Your task to perform on an android device: check storage Image 0: 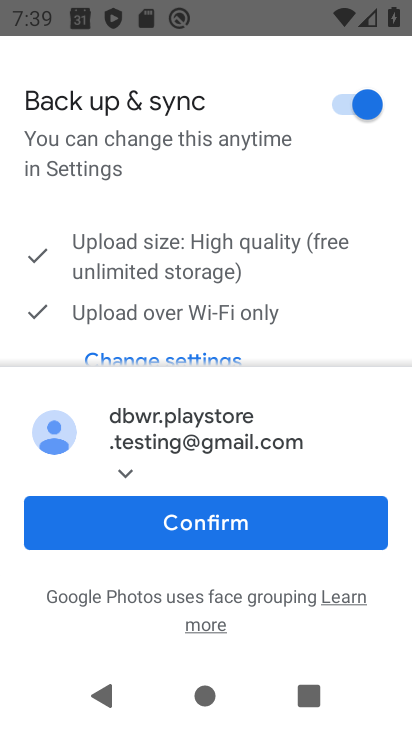
Step 0: press home button
Your task to perform on an android device: check storage Image 1: 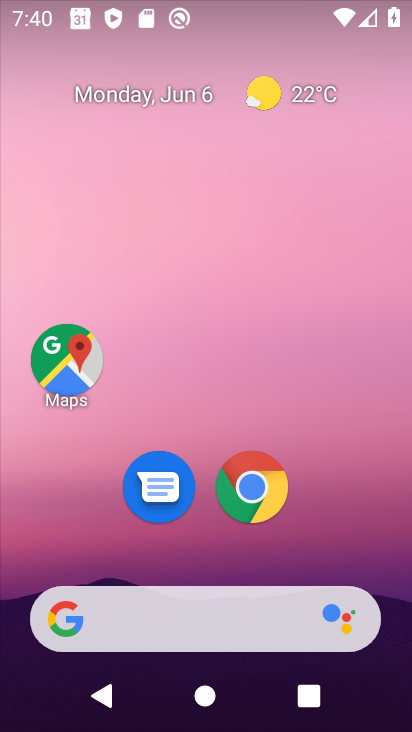
Step 1: drag from (312, 514) to (279, 188)
Your task to perform on an android device: check storage Image 2: 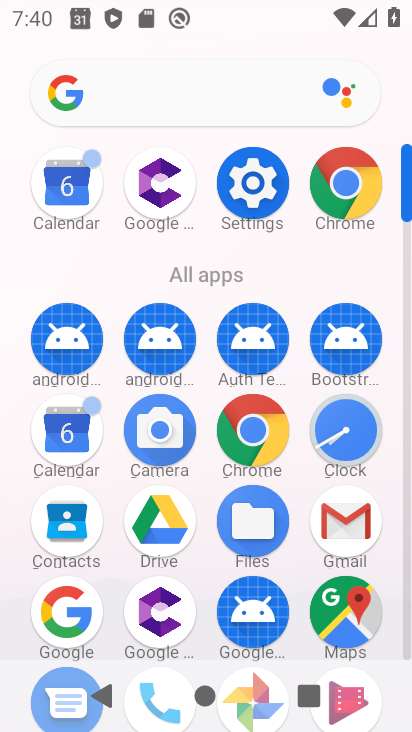
Step 2: click (249, 188)
Your task to perform on an android device: check storage Image 3: 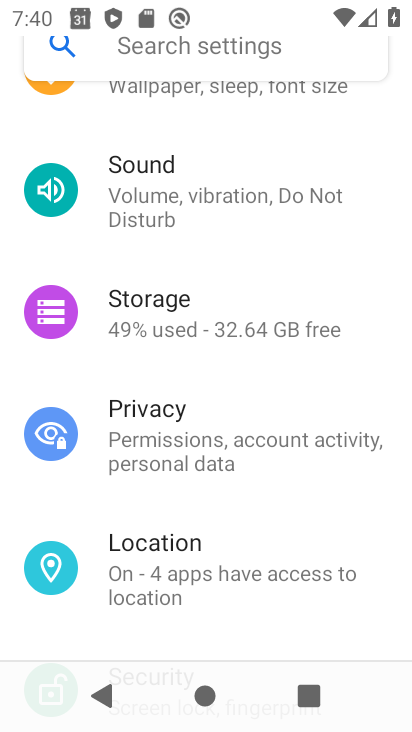
Step 3: drag from (261, 535) to (273, 384)
Your task to perform on an android device: check storage Image 4: 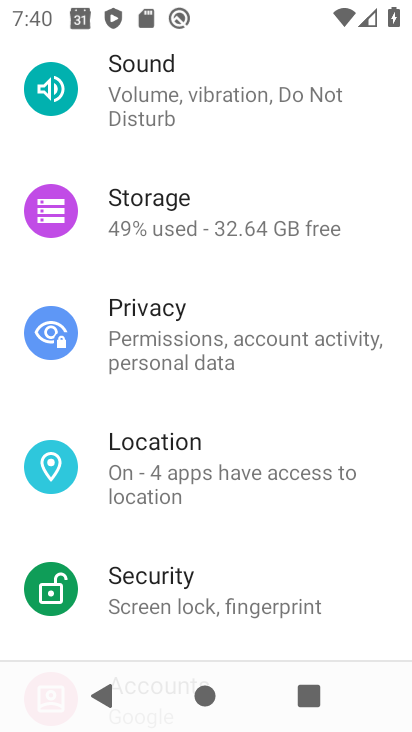
Step 4: click (180, 185)
Your task to perform on an android device: check storage Image 5: 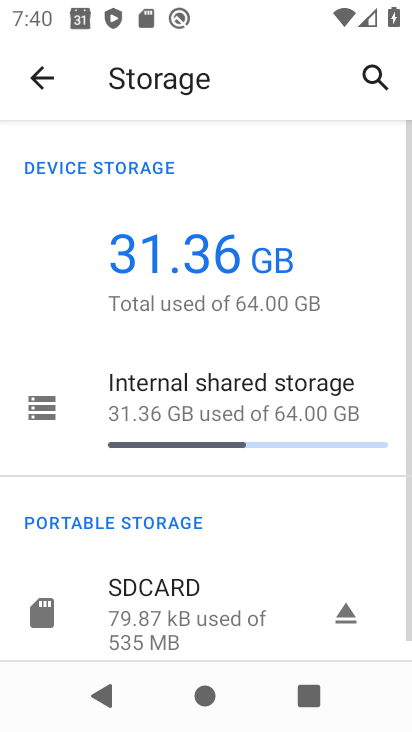
Step 5: click (41, 428)
Your task to perform on an android device: check storage Image 6: 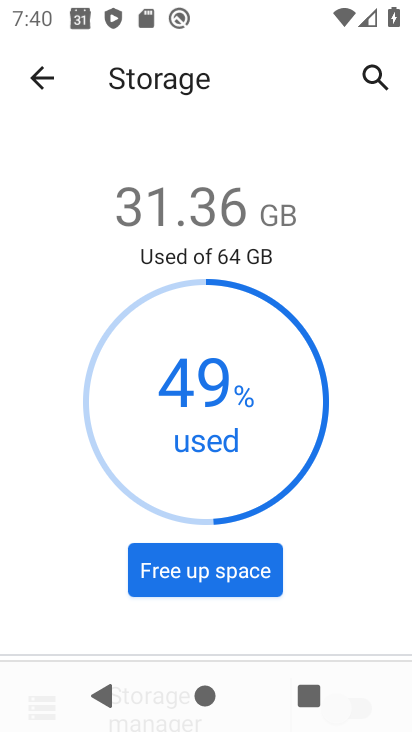
Step 6: task complete